Your task to perform on an android device: Search for vegetarian restaurants on Maps Image 0: 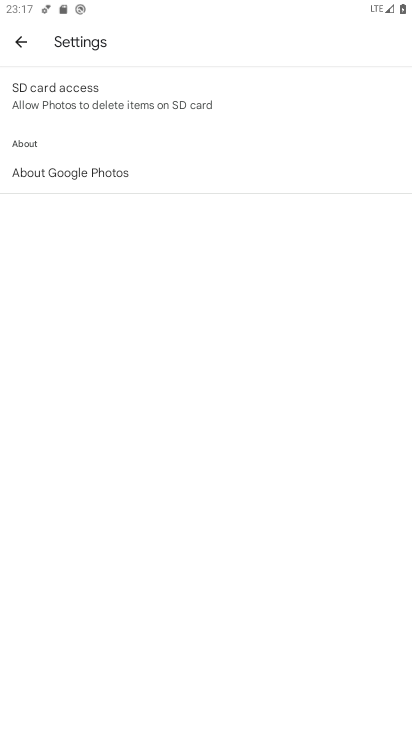
Step 0: press home button
Your task to perform on an android device: Search for vegetarian restaurants on Maps Image 1: 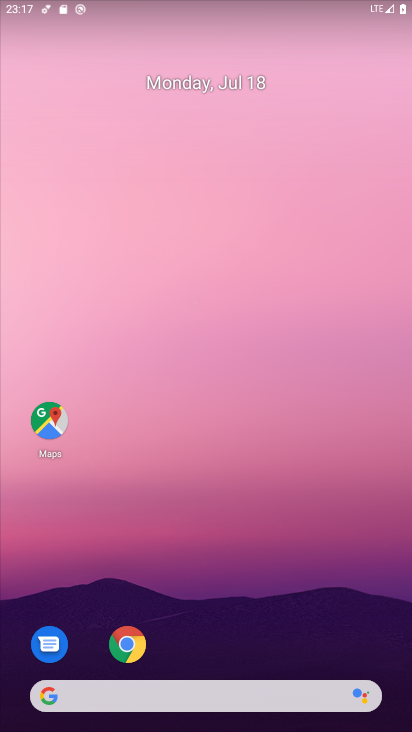
Step 1: drag from (287, 598) to (356, 91)
Your task to perform on an android device: Search for vegetarian restaurants on Maps Image 2: 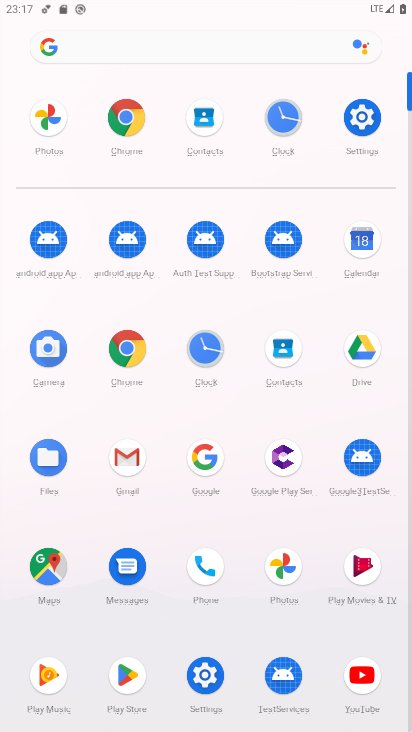
Step 2: click (50, 571)
Your task to perform on an android device: Search for vegetarian restaurants on Maps Image 3: 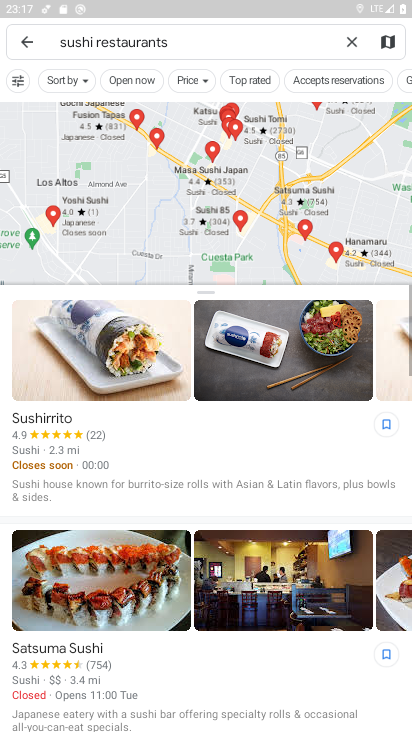
Step 3: press back button
Your task to perform on an android device: Search for vegetarian restaurants on Maps Image 4: 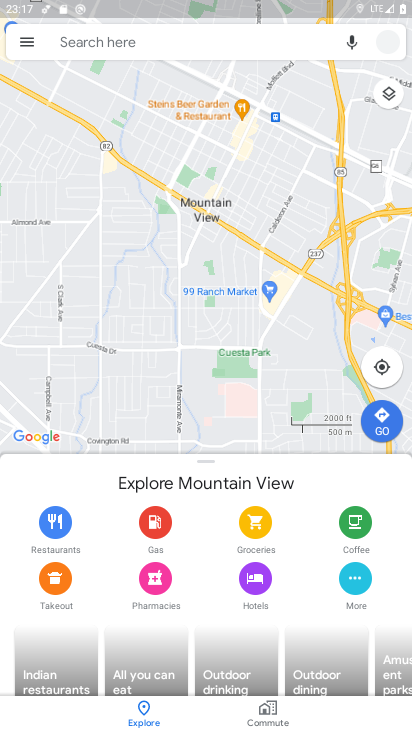
Step 4: click (225, 40)
Your task to perform on an android device: Search for vegetarian restaurants on Maps Image 5: 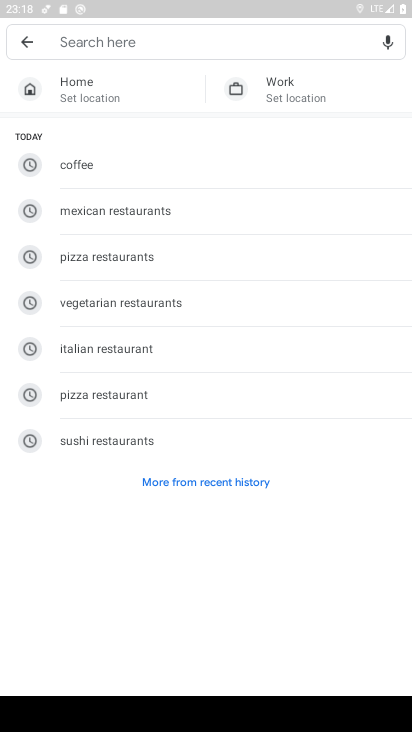
Step 5: type "vegetrain restaurants"
Your task to perform on an android device: Search for vegetarian restaurants on Maps Image 6: 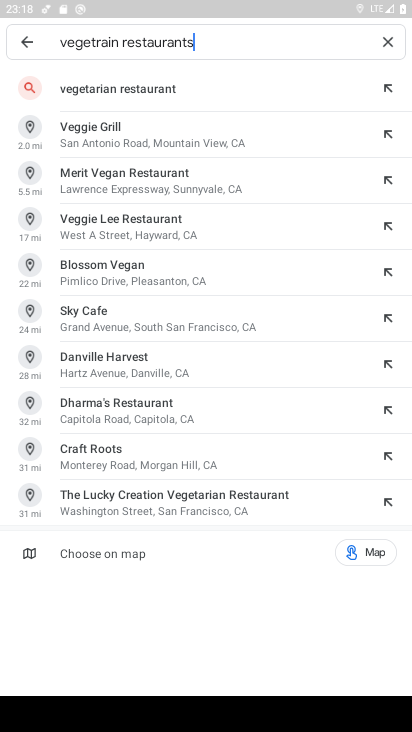
Step 6: click (212, 96)
Your task to perform on an android device: Search for vegetarian restaurants on Maps Image 7: 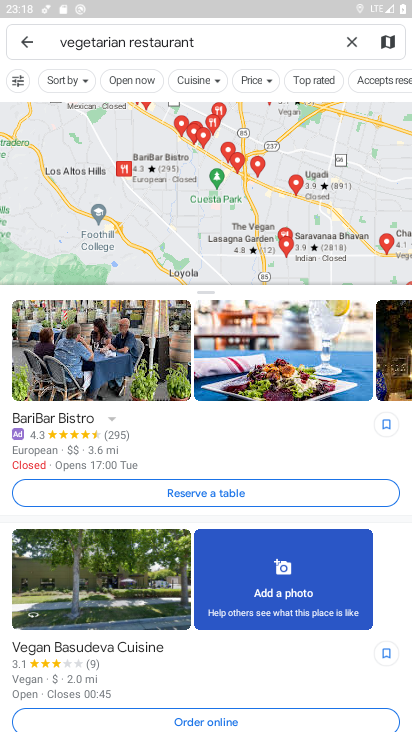
Step 7: task complete